Your task to perform on an android device: see creations saved in the google photos Image 0: 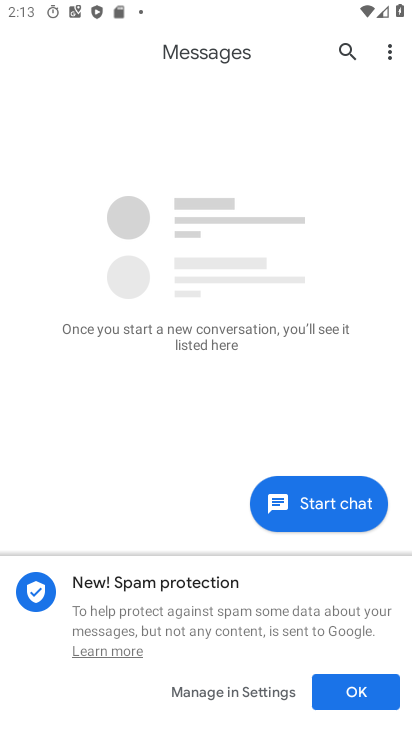
Step 0: press home button
Your task to perform on an android device: see creations saved in the google photos Image 1: 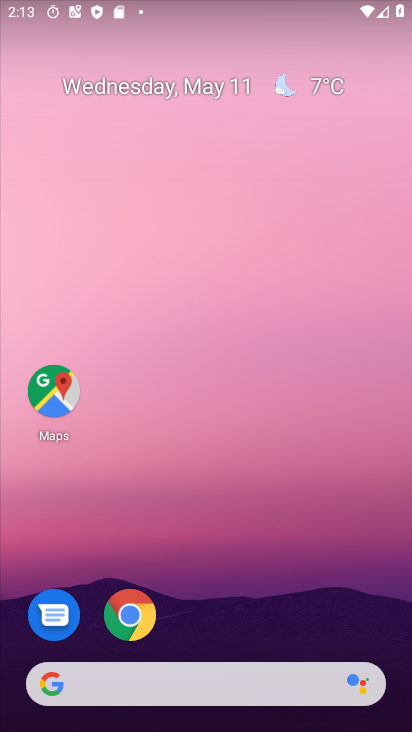
Step 1: drag from (207, 677) to (206, 257)
Your task to perform on an android device: see creations saved in the google photos Image 2: 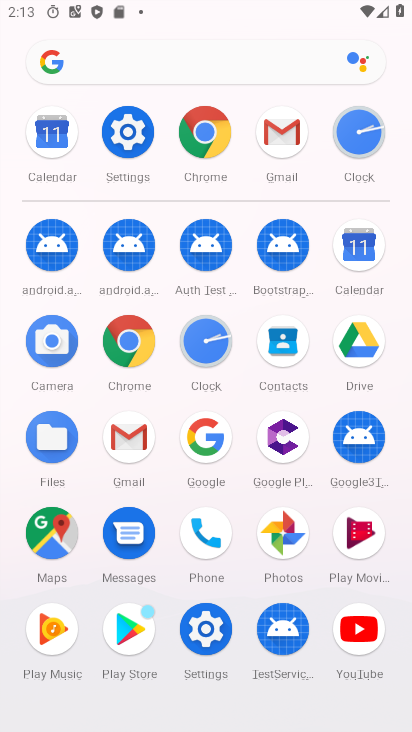
Step 2: click (278, 532)
Your task to perform on an android device: see creations saved in the google photos Image 3: 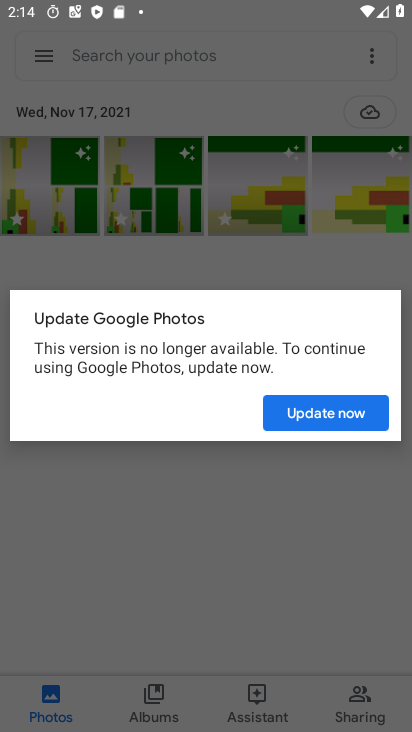
Step 3: click (300, 415)
Your task to perform on an android device: see creations saved in the google photos Image 4: 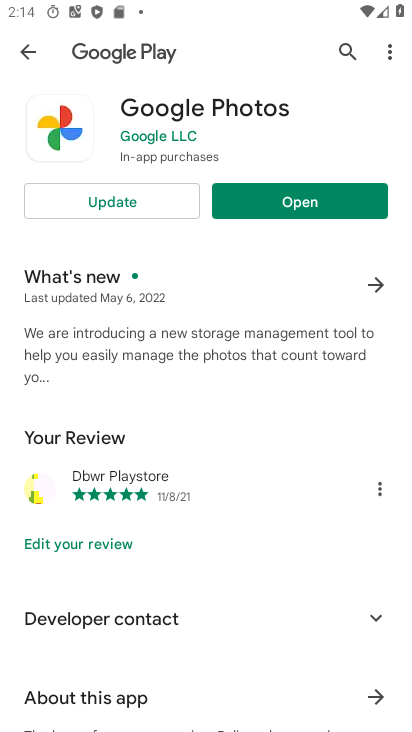
Step 4: click (150, 192)
Your task to perform on an android device: see creations saved in the google photos Image 5: 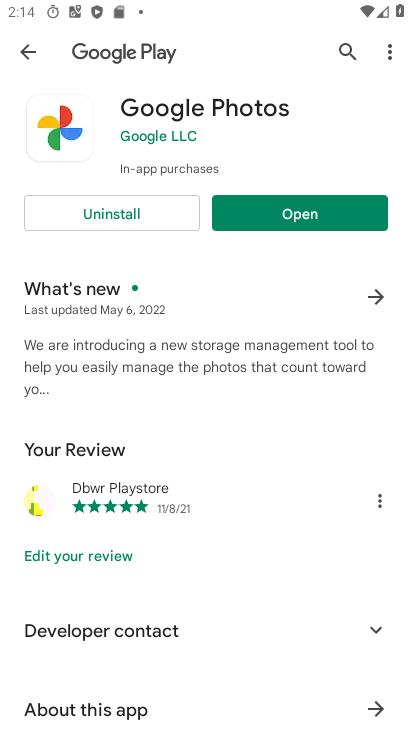
Step 5: click (298, 232)
Your task to perform on an android device: see creations saved in the google photos Image 6: 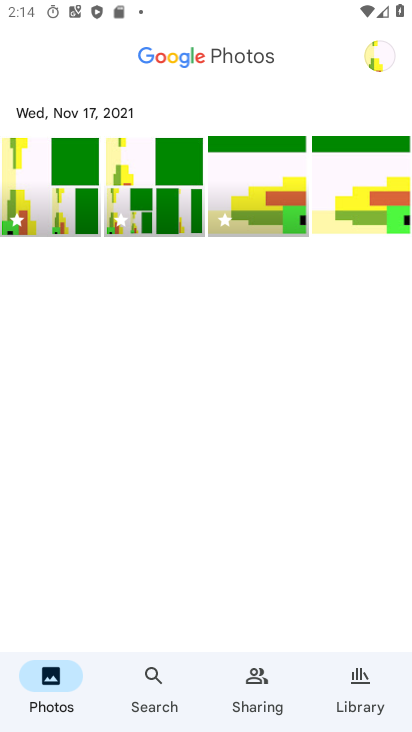
Step 6: click (360, 683)
Your task to perform on an android device: see creations saved in the google photos Image 7: 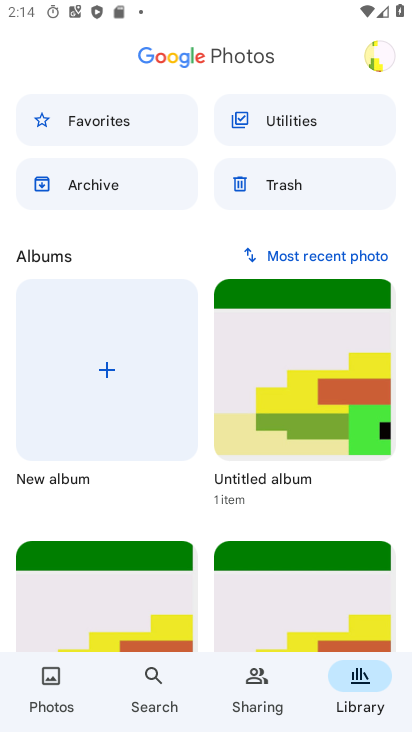
Step 7: task complete